Your task to perform on an android device: Open the calendar app, open the side menu, and click the "Day" option Image 0: 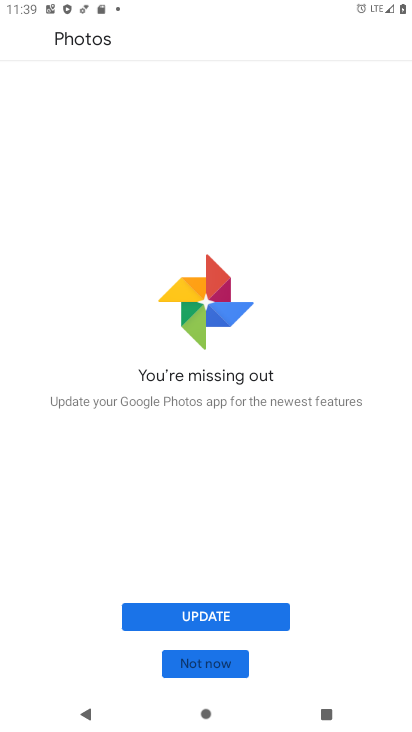
Step 0: press home button
Your task to perform on an android device: Open the calendar app, open the side menu, and click the "Day" option Image 1: 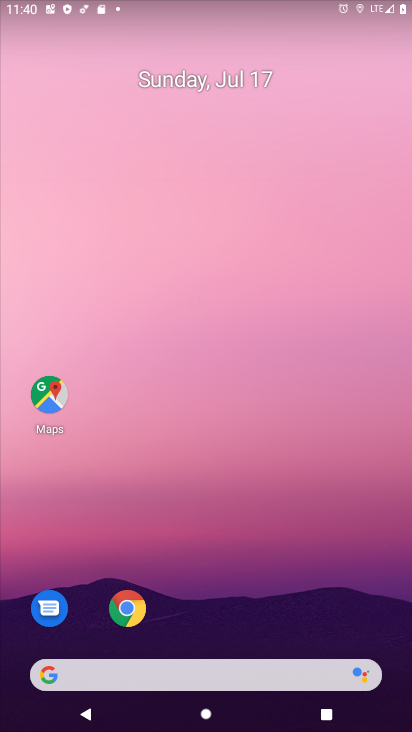
Step 1: drag from (222, 639) to (296, 35)
Your task to perform on an android device: Open the calendar app, open the side menu, and click the "Day" option Image 2: 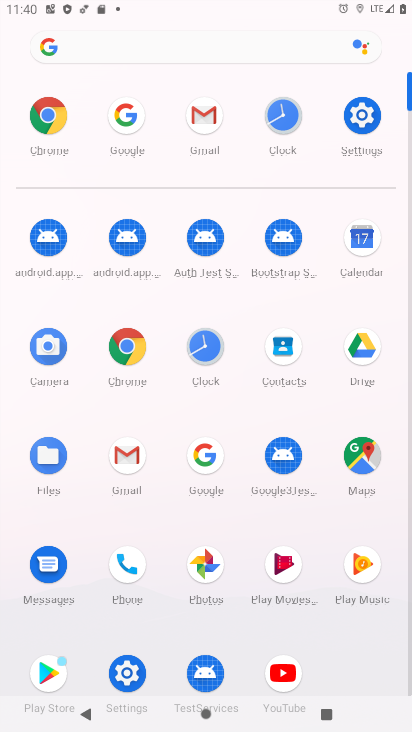
Step 2: click (362, 236)
Your task to perform on an android device: Open the calendar app, open the side menu, and click the "Day" option Image 3: 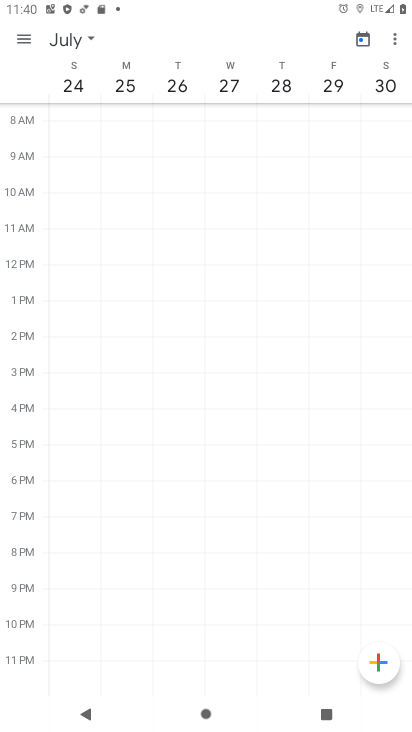
Step 3: click (31, 35)
Your task to perform on an android device: Open the calendar app, open the side menu, and click the "Day" option Image 4: 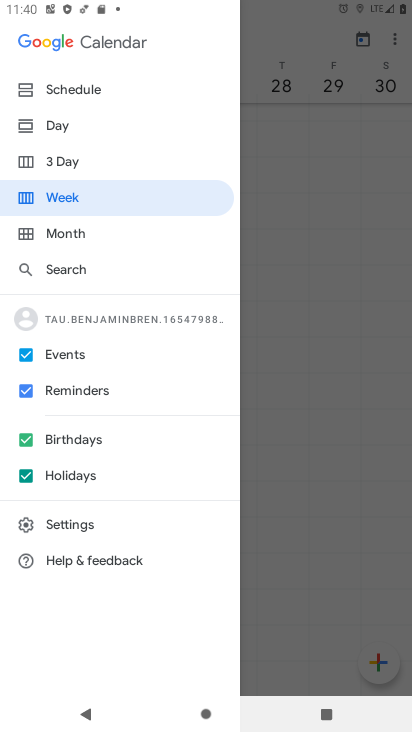
Step 4: click (48, 123)
Your task to perform on an android device: Open the calendar app, open the side menu, and click the "Day" option Image 5: 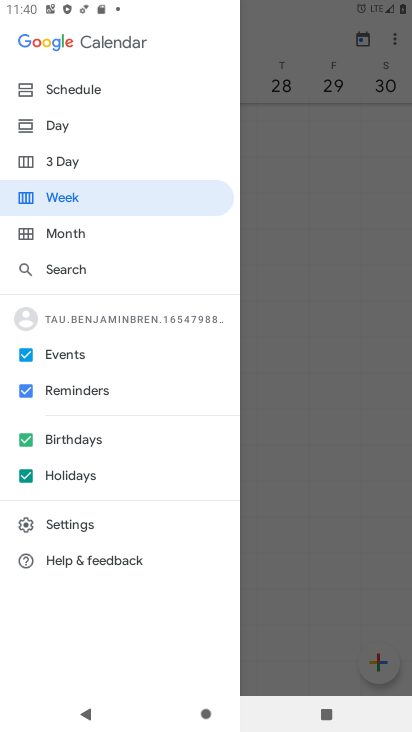
Step 5: click (38, 123)
Your task to perform on an android device: Open the calendar app, open the side menu, and click the "Day" option Image 6: 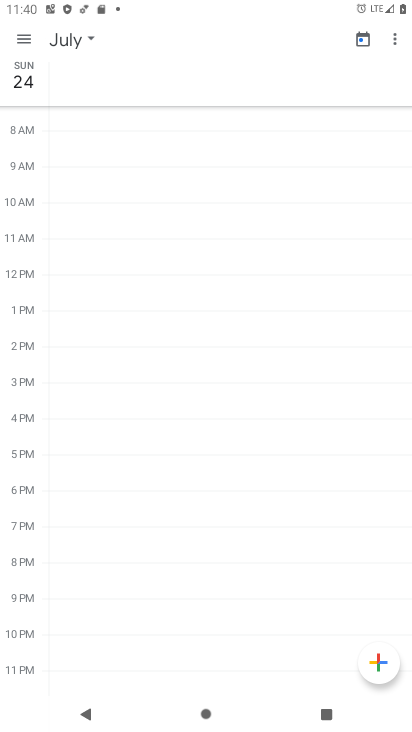
Step 6: task complete